Your task to perform on an android device: Open Chrome and go to settings Image 0: 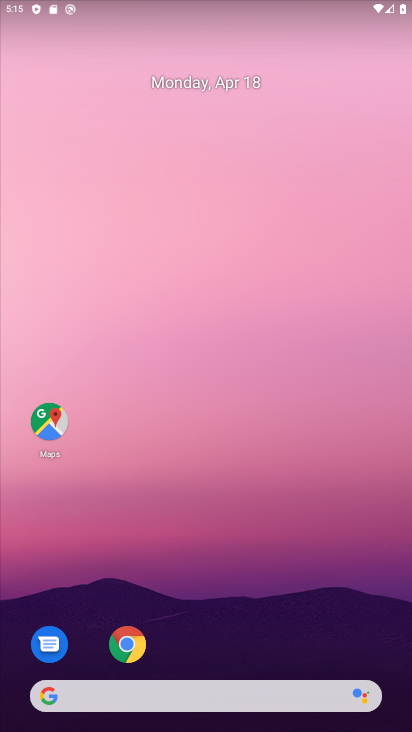
Step 0: press home button
Your task to perform on an android device: Open Chrome and go to settings Image 1: 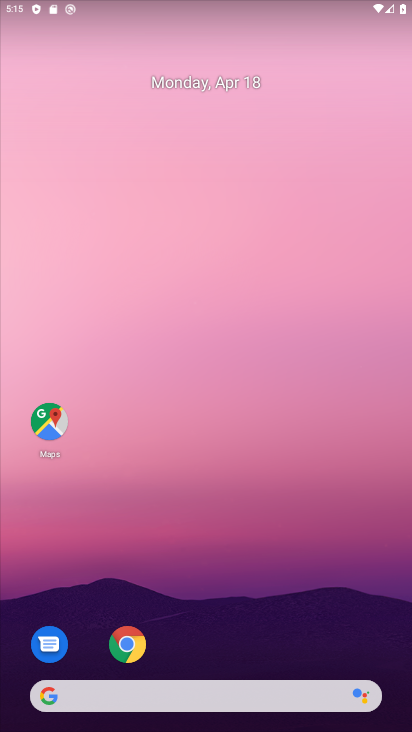
Step 1: click (125, 641)
Your task to perform on an android device: Open Chrome and go to settings Image 2: 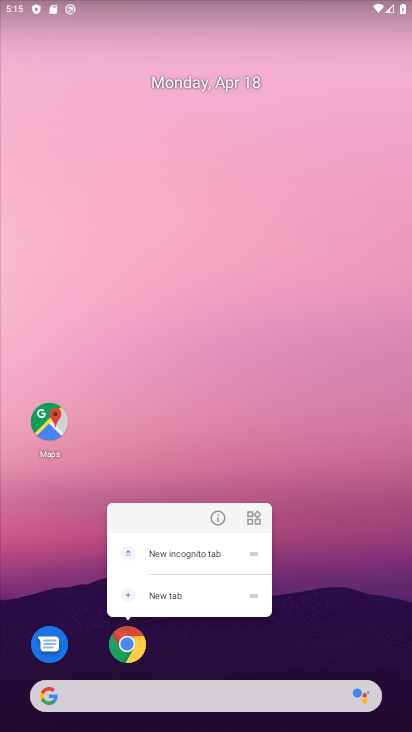
Step 2: click (129, 640)
Your task to perform on an android device: Open Chrome and go to settings Image 3: 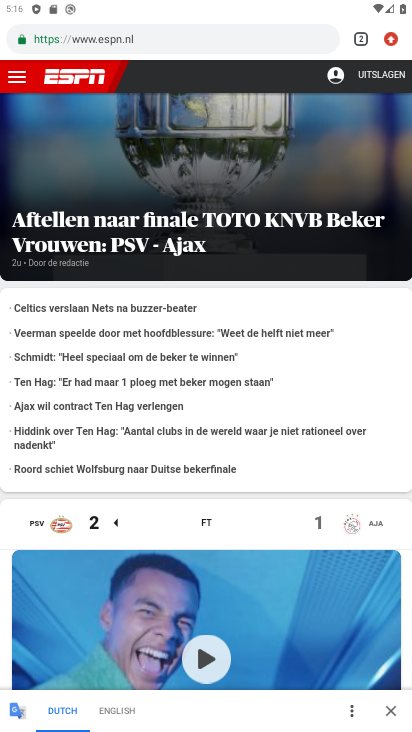
Step 3: click (383, 46)
Your task to perform on an android device: Open Chrome and go to settings Image 4: 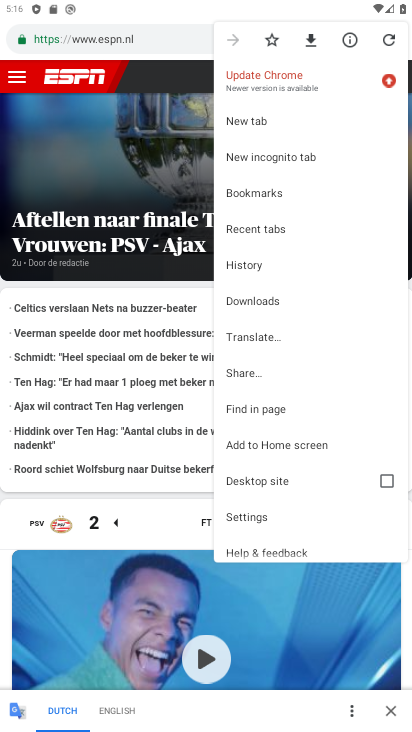
Step 4: click (277, 514)
Your task to perform on an android device: Open Chrome and go to settings Image 5: 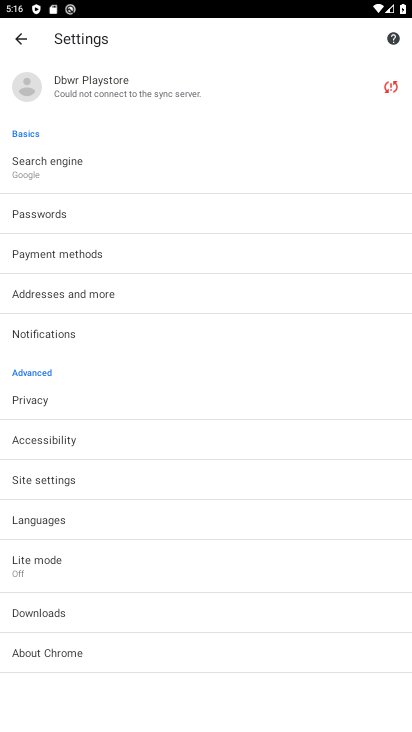
Step 5: task complete